Your task to perform on an android device: set the stopwatch Image 0: 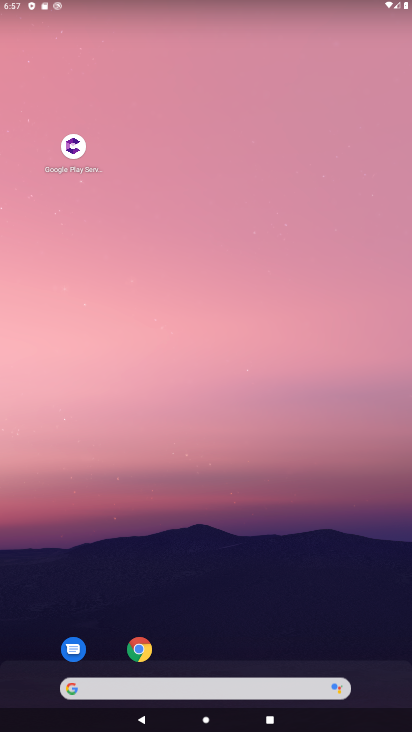
Step 0: drag from (225, 706) to (226, 218)
Your task to perform on an android device: set the stopwatch Image 1: 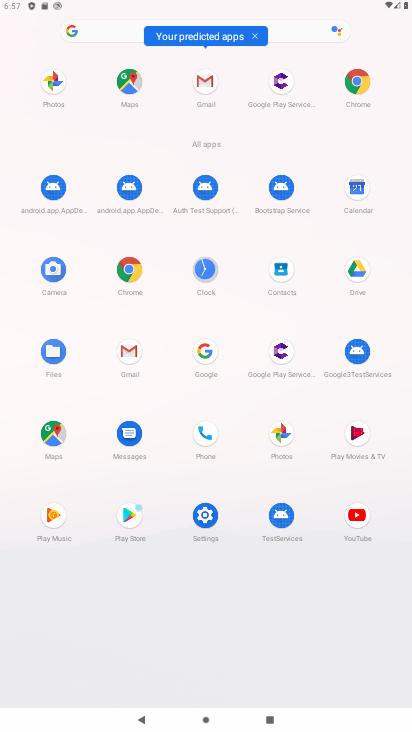
Step 1: click (207, 268)
Your task to perform on an android device: set the stopwatch Image 2: 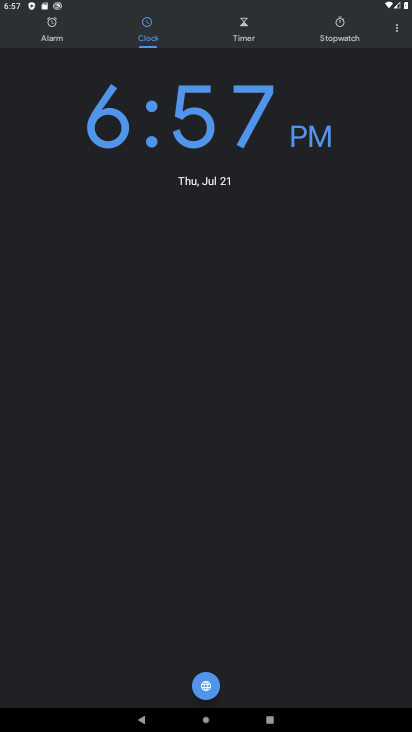
Step 2: click (346, 26)
Your task to perform on an android device: set the stopwatch Image 3: 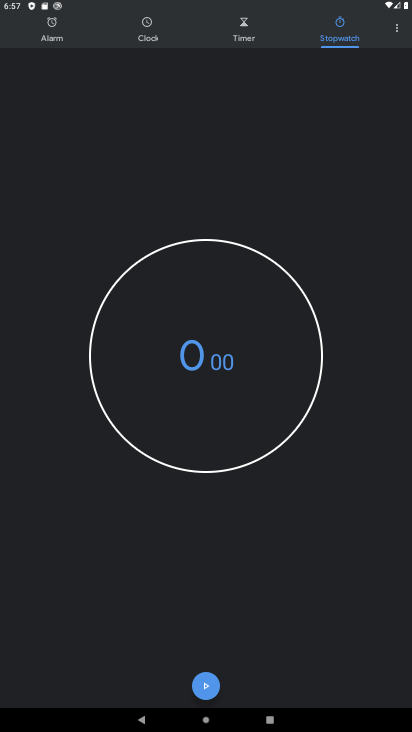
Step 3: click (206, 681)
Your task to perform on an android device: set the stopwatch Image 4: 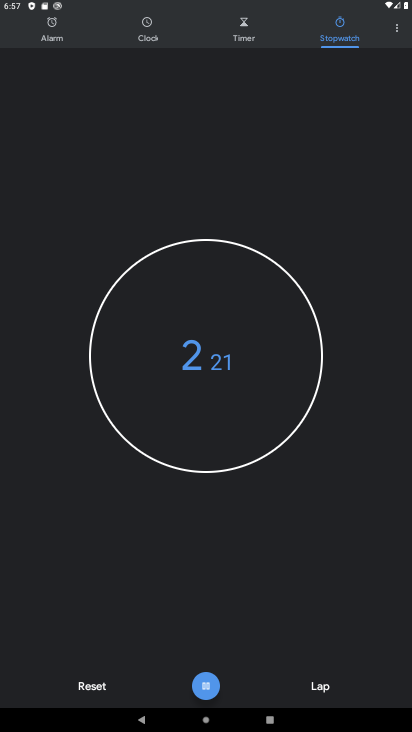
Step 4: click (208, 681)
Your task to perform on an android device: set the stopwatch Image 5: 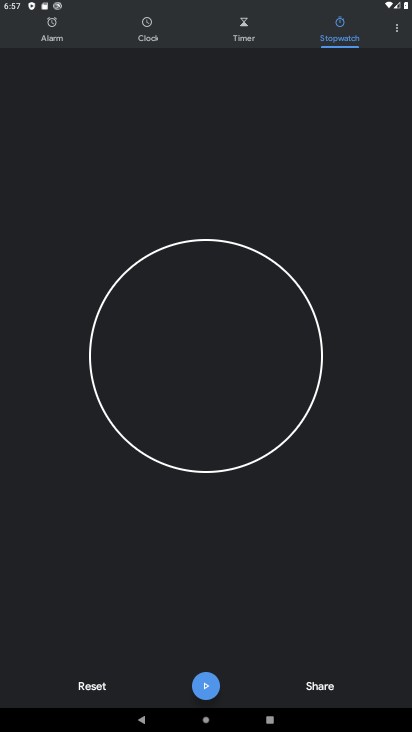
Step 5: task complete